Your task to perform on an android device: Go to eBay Image 0: 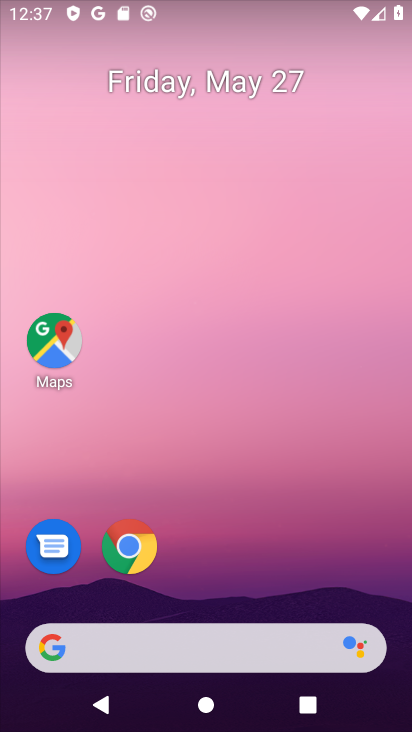
Step 0: drag from (237, 679) to (166, 223)
Your task to perform on an android device: Go to eBay Image 1: 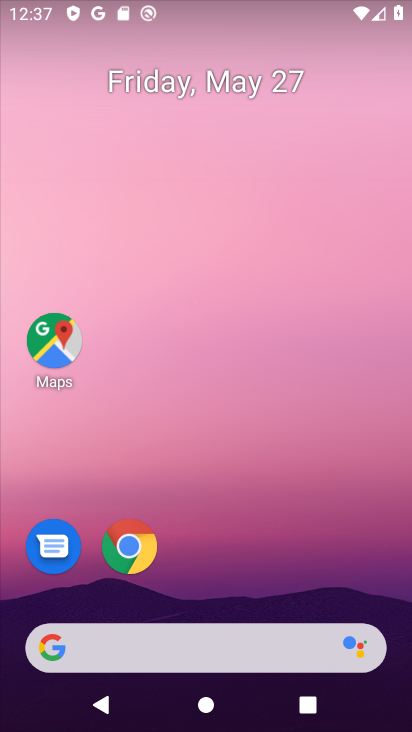
Step 1: drag from (238, 616) to (184, 186)
Your task to perform on an android device: Go to eBay Image 2: 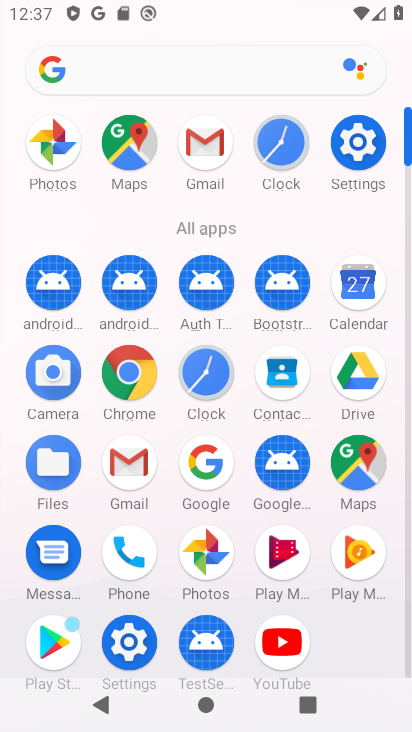
Step 2: drag from (252, 575) to (197, 244)
Your task to perform on an android device: Go to eBay Image 3: 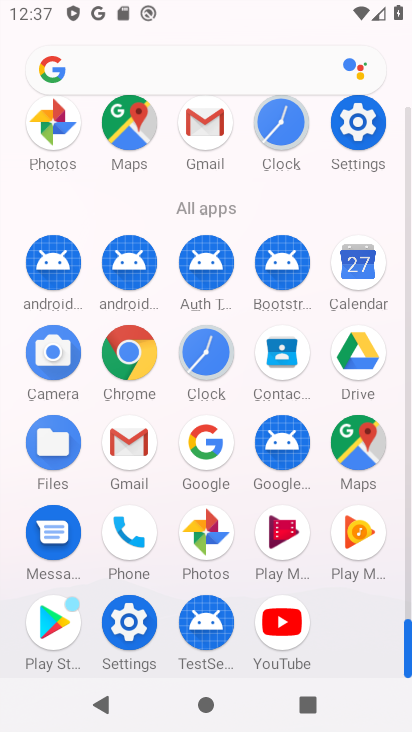
Step 3: click (130, 357)
Your task to perform on an android device: Go to eBay Image 4: 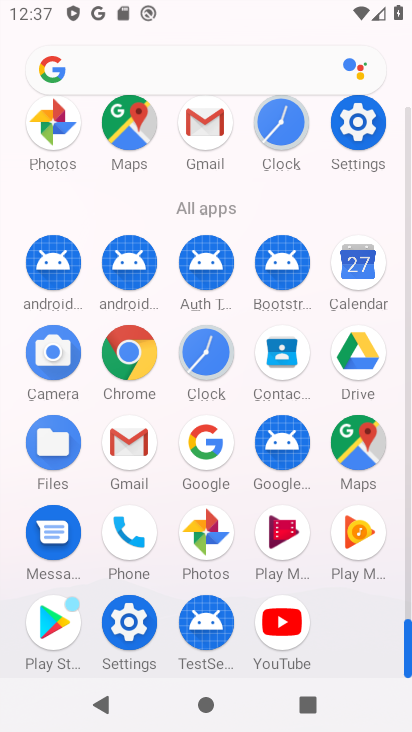
Step 4: click (131, 357)
Your task to perform on an android device: Go to eBay Image 5: 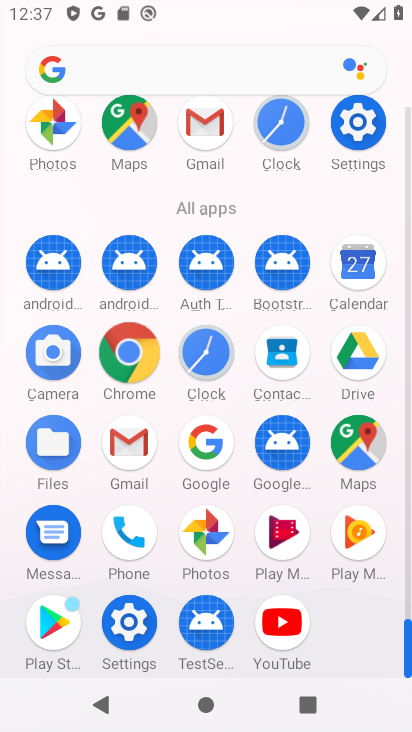
Step 5: click (130, 349)
Your task to perform on an android device: Go to eBay Image 6: 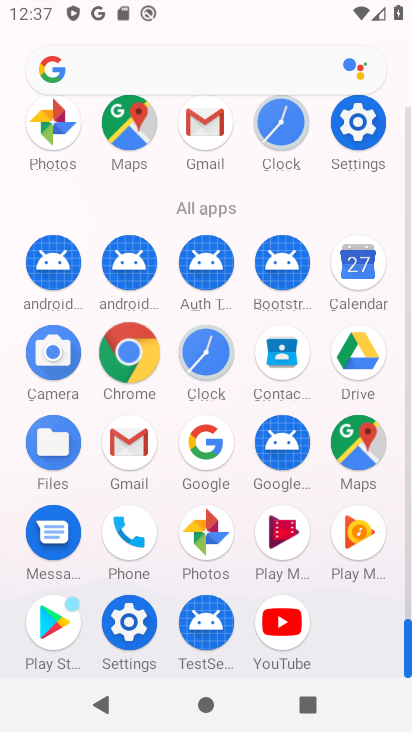
Step 6: click (124, 341)
Your task to perform on an android device: Go to eBay Image 7: 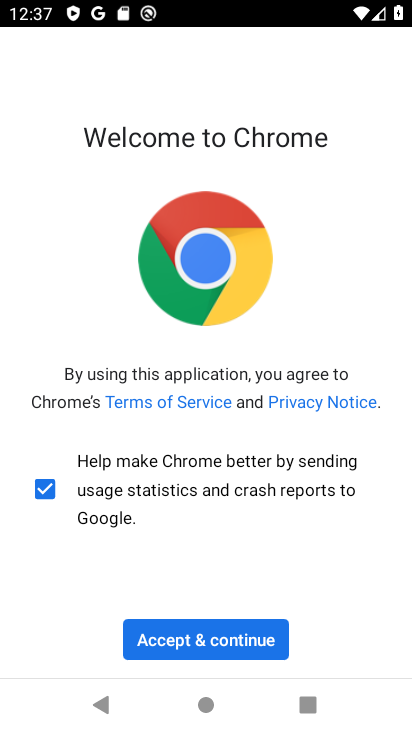
Step 7: click (199, 641)
Your task to perform on an android device: Go to eBay Image 8: 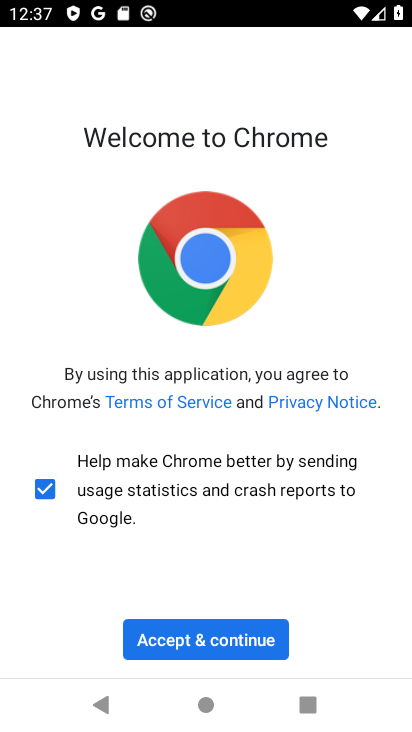
Step 8: click (198, 642)
Your task to perform on an android device: Go to eBay Image 9: 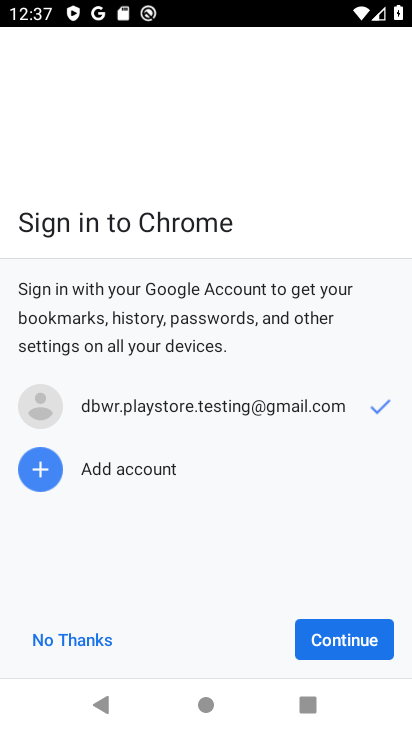
Step 9: click (205, 643)
Your task to perform on an android device: Go to eBay Image 10: 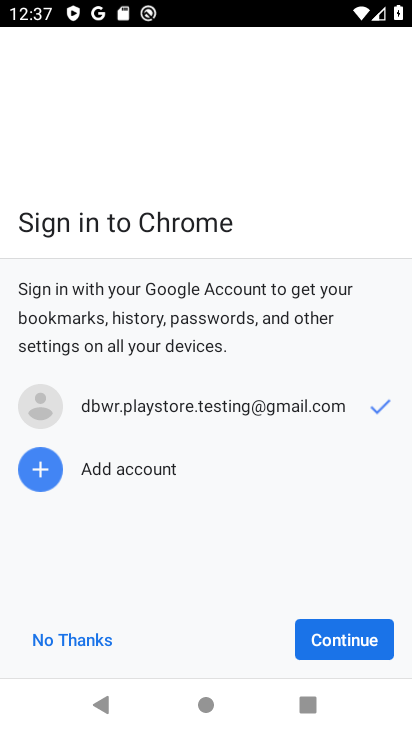
Step 10: click (354, 632)
Your task to perform on an android device: Go to eBay Image 11: 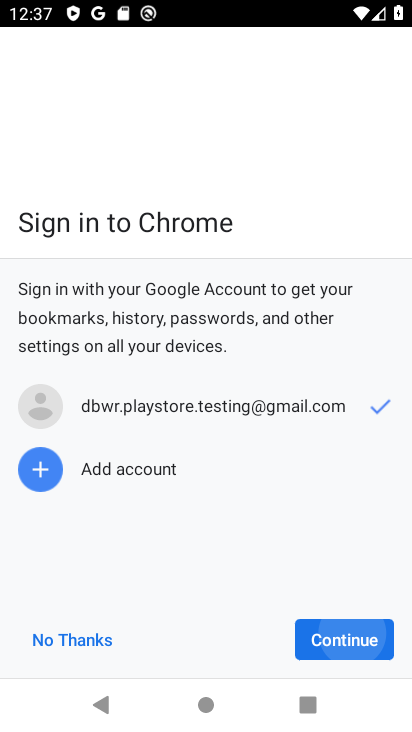
Step 11: click (355, 634)
Your task to perform on an android device: Go to eBay Image 12: 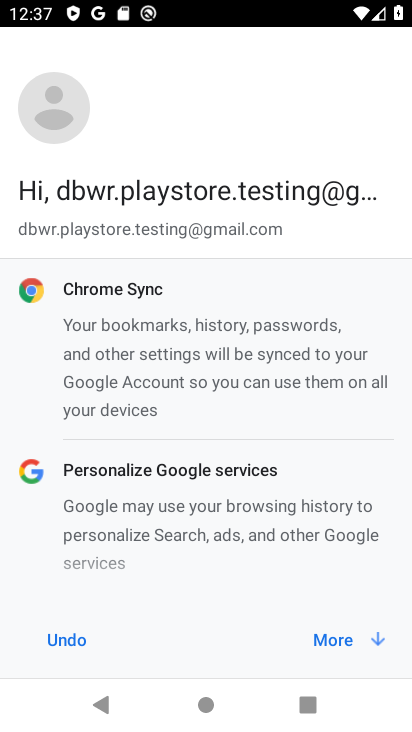
Step 12: click (355, 637)
Your task to perform on an android device: Go to eBay Image 13: 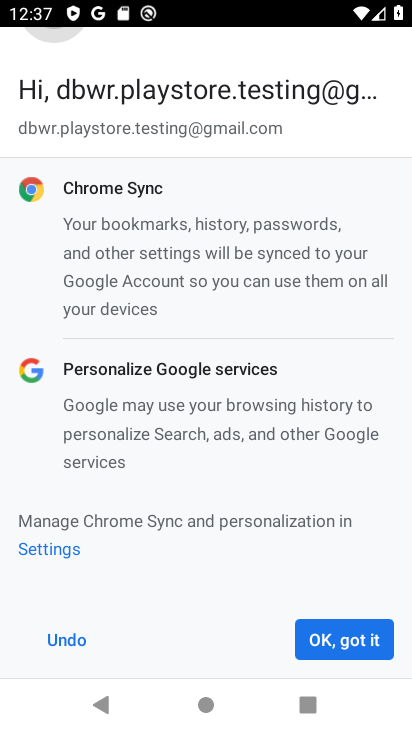
Step 13: click (355, 639)
Your task to perform on an android device: Go to eBay Image 14: 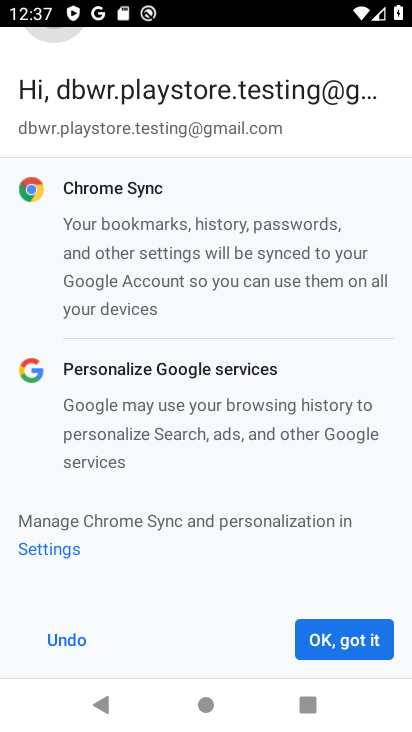
Step 14: click (357, 637)
Your task to perform on an android device: Go to eBay Image 15: 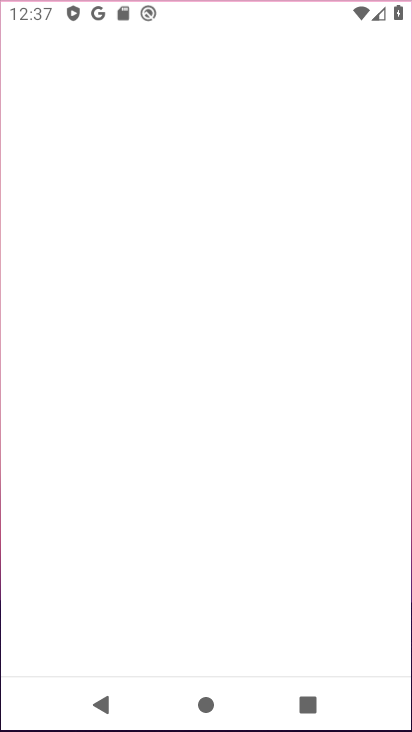
Step 15: click (355, 634)
Your task to perform on an android device: Go to eBay Image 16: 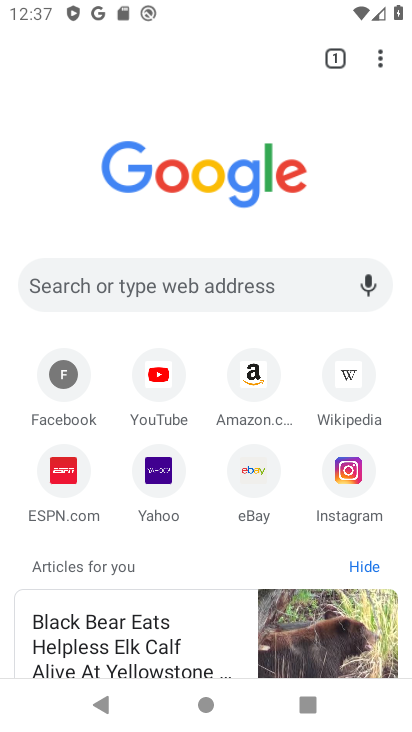
Step 16: click (245, 468)
Your task to perform on an android device: Go to eBay Image 17: 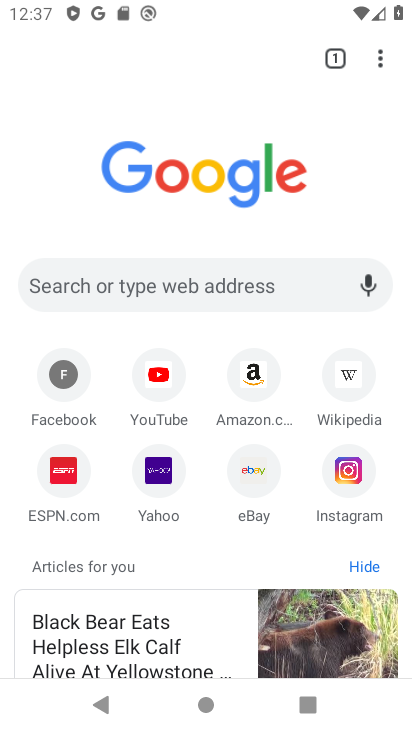
Step 17: click (245, 468)
Your task to perform on an android device: Go to eBay Image 18: 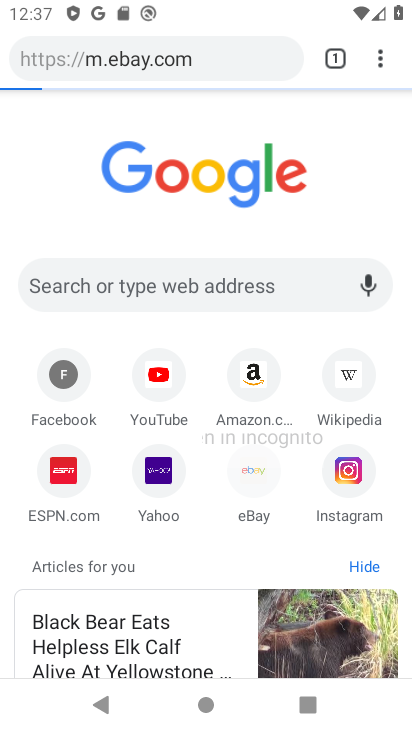
Step 18: click (248, 472)
Your task to perform on an android device: Go to eBay Image 19: 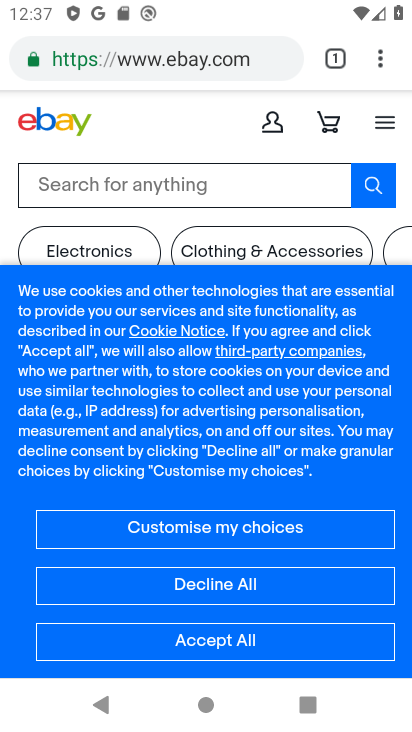
Step 19: task complete